Your task to perform on an android device: toggle wifi Image 0: 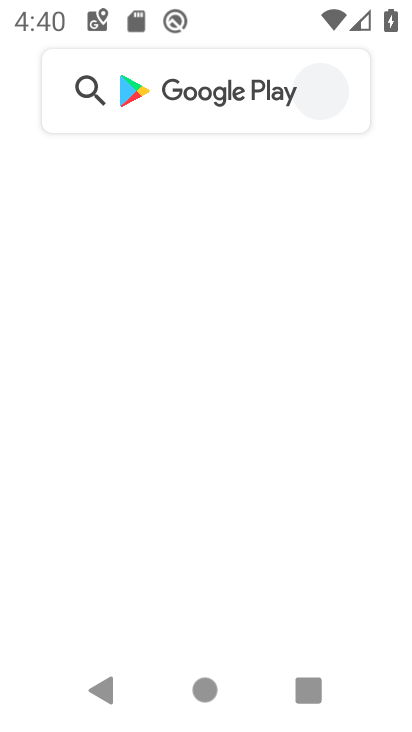
Step 0: press home button
Your task to perform on an android device: toggle wifi Image 1: 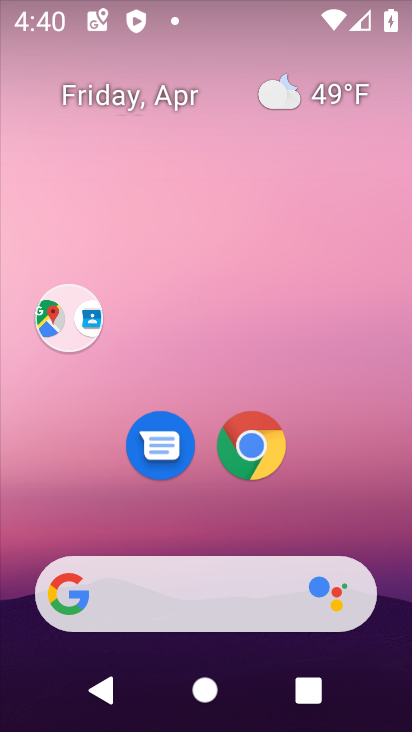
Step 1: drag from (345, 458) to (307, 56)
Your task to perform on an android device: toggle wifi Image 2: 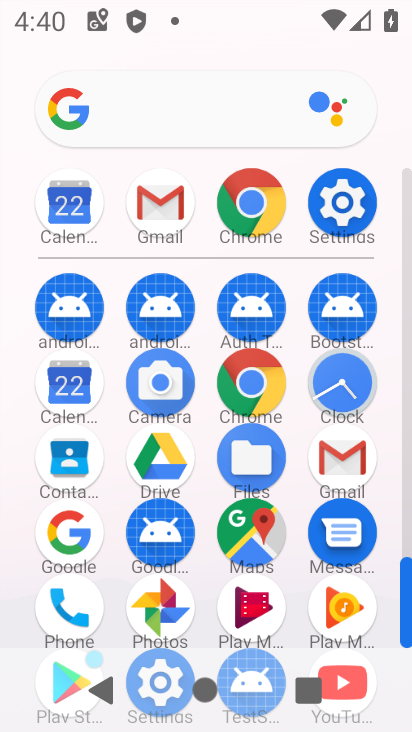
Step 2: drag from (206, 555) to (256, 198)
Your task to perform on an android device: toggle wifi Image 3: 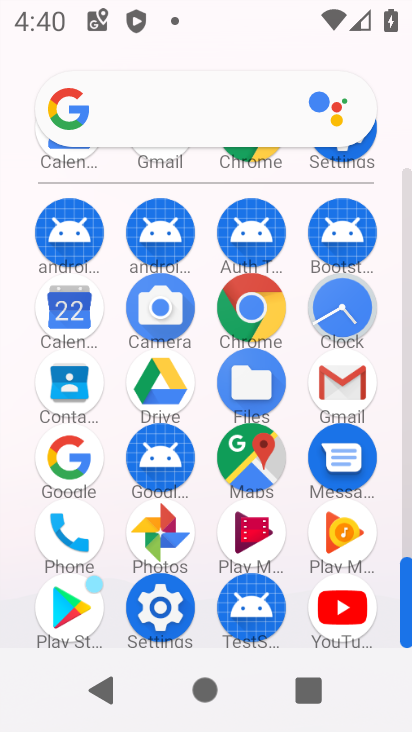
Step 3: click (169, 619)
Your task to perform on an android device: toggle wifi Image 4: 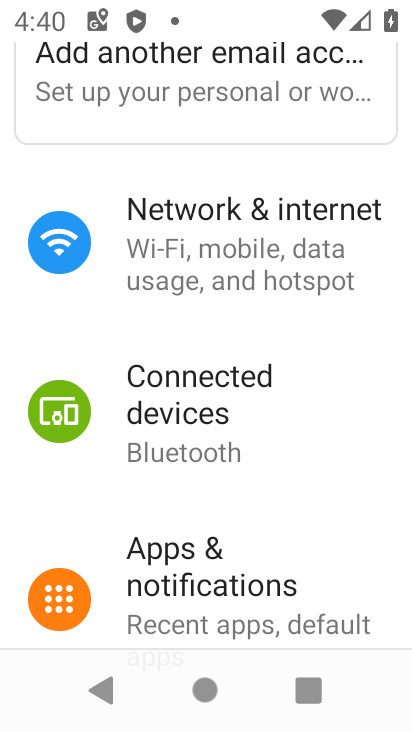
Step 4: click (252, 257)
Your task to perform on an android device: toggle wifi Image 5: 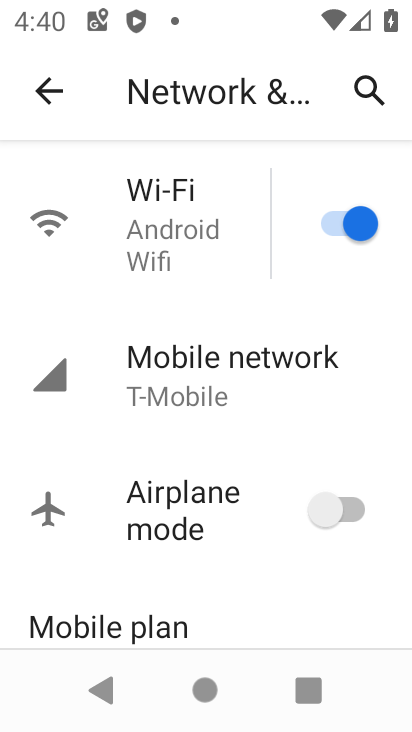
Step 5: click (339, 219)
Your task to perform on an android device: toggle wifi Image 6: 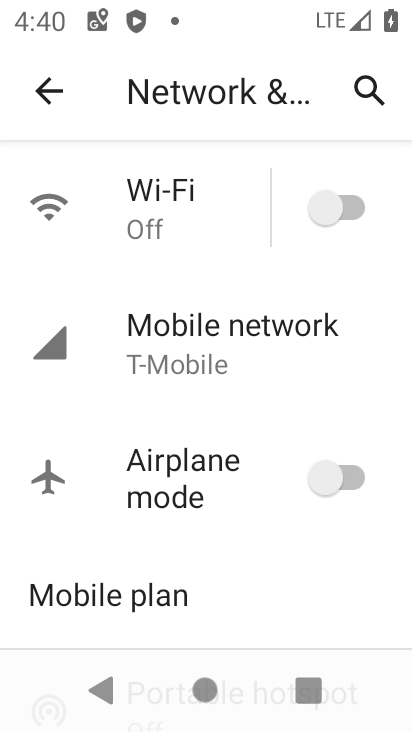
Step 6: task complete